Your task to perform on an android device: What is the news today? Image 0: 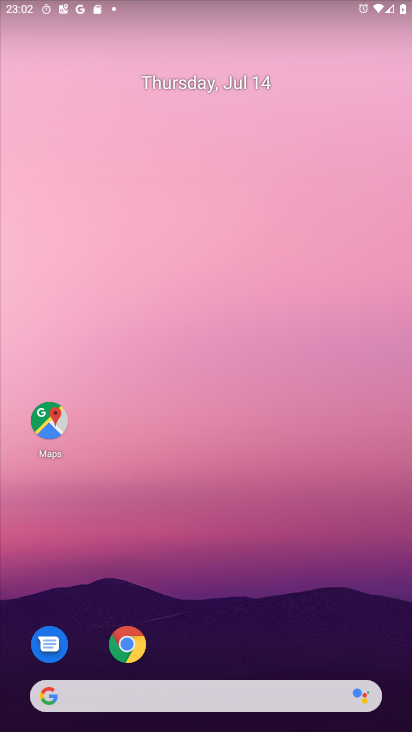
Step 0: click (253, 712)
Your task to perform on an android device: What is the news today? Image 1: 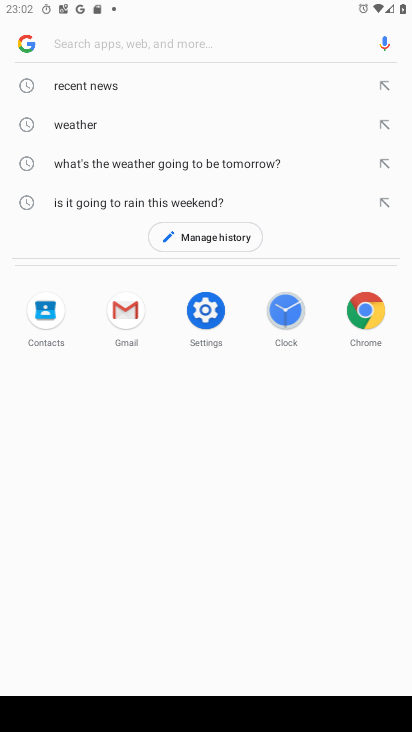
Step 1: click (28, 38)
Your task to perform on an android device: What is the news today? Image 2: 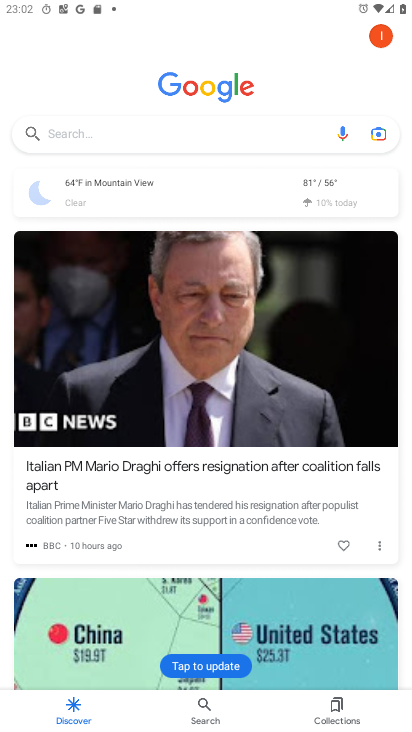
Step 2: task complete